Your task to perform on an android device: check battery use Image 0: 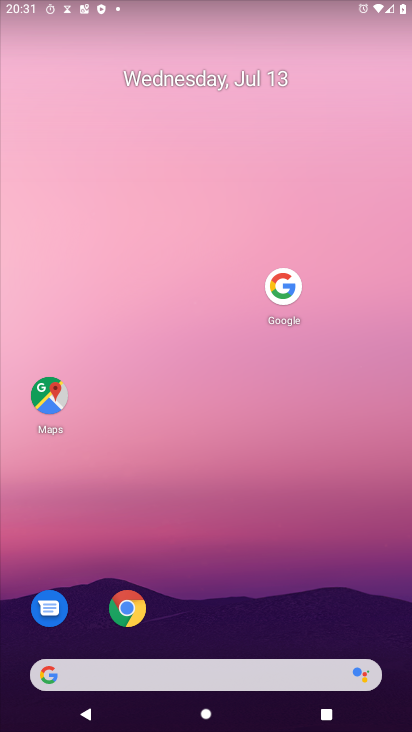
Step 0: drag from (242, 645) to (185, 114)
Your task to perform on an android device: check battery use Image 1: 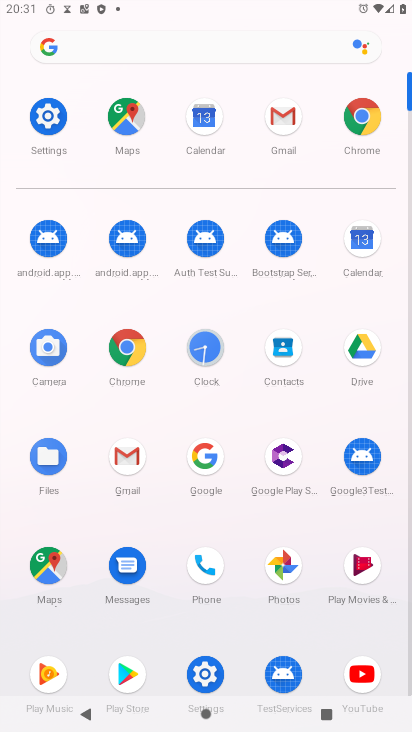
Step 1: click (48, 112)
Your task to perform on an android device: check battery use Image 2: 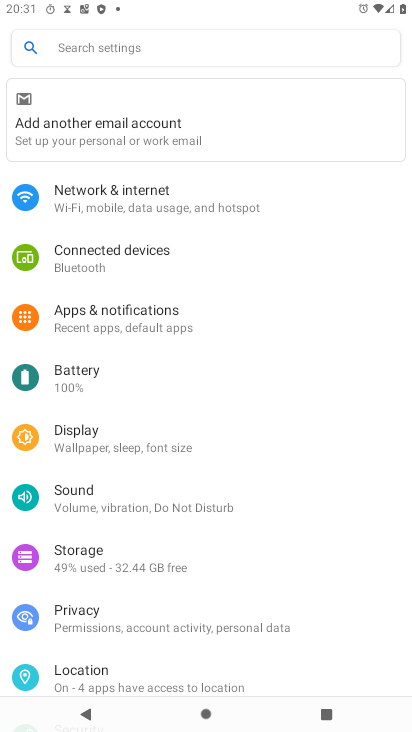
Step 2: click (80, 385)
Your task to perform on an android device: check battery use Image 3: 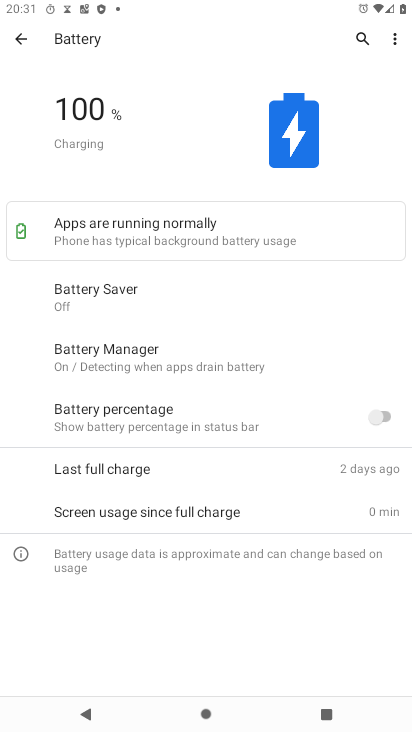
Step 3: task complete